Your task to perform on an android device: Is it going to rain this weekend? Image 0: 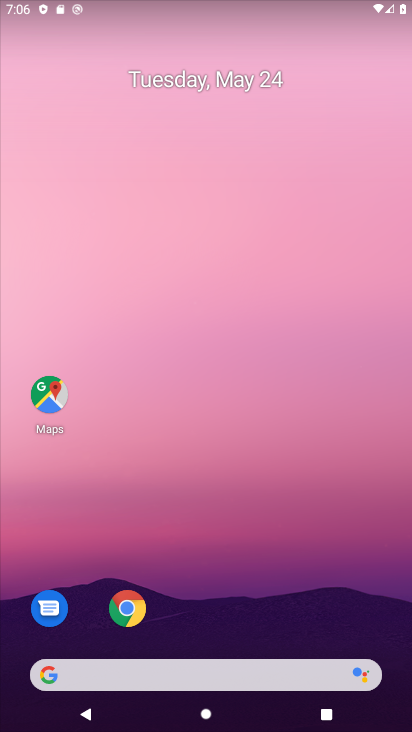
Step 0: drag from (295, 552) to (238, 139)
Your task to perform on an android device: Is it going to rain this weekend? Image 1: 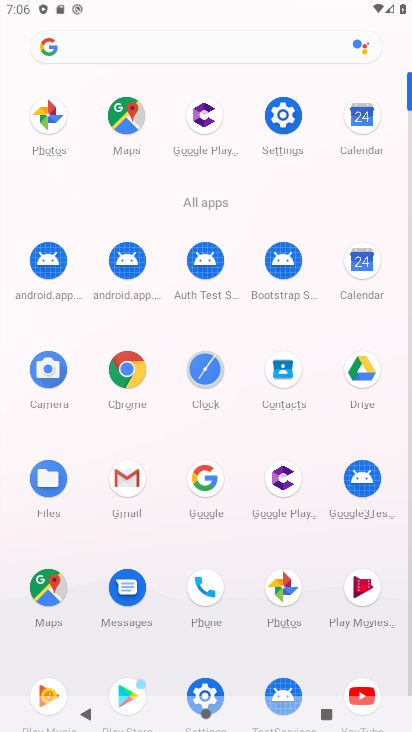
Step 1: click (200, 477)
Your task to perform on an android device: Is it going to rain this weekend? Image 2: 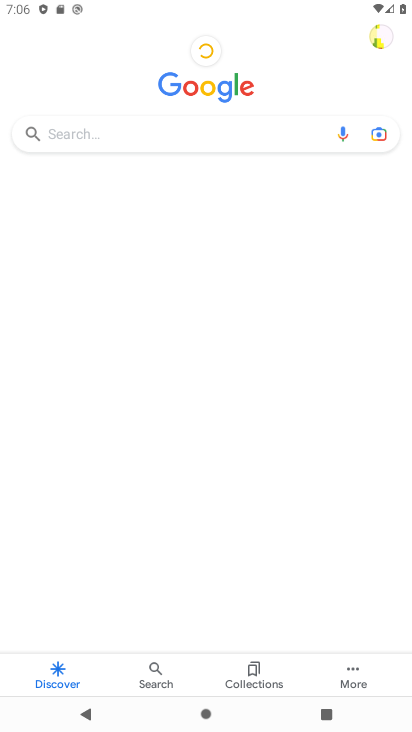
Step 2: click (147, 132)
Your task to perform on an android device: Is it going to rain this weekend? Image 3: 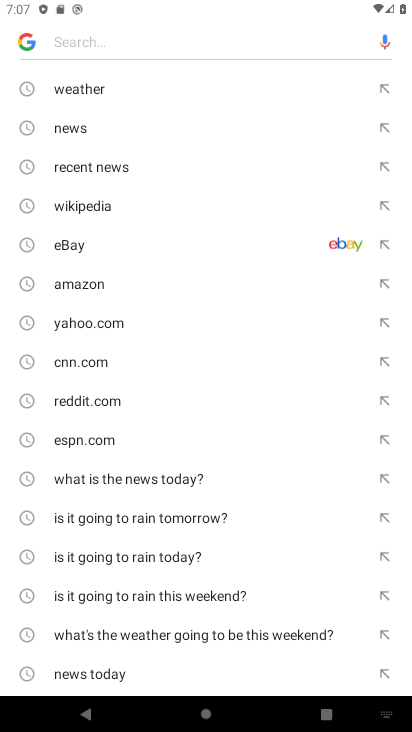
Step 3: type "Is it going to rain this weekend"
Your task to perform on an android device: Is it going to rain this weekend? Image 4: 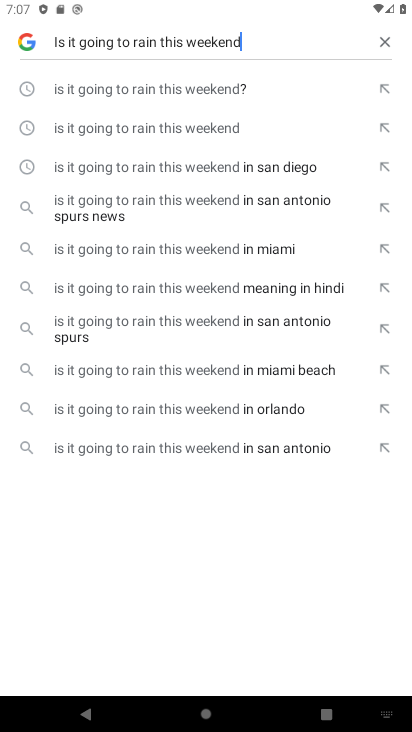
Step 4: click (148, 86)
Your task to perform on an android device: Is it going to rain this weekend? Image 5: 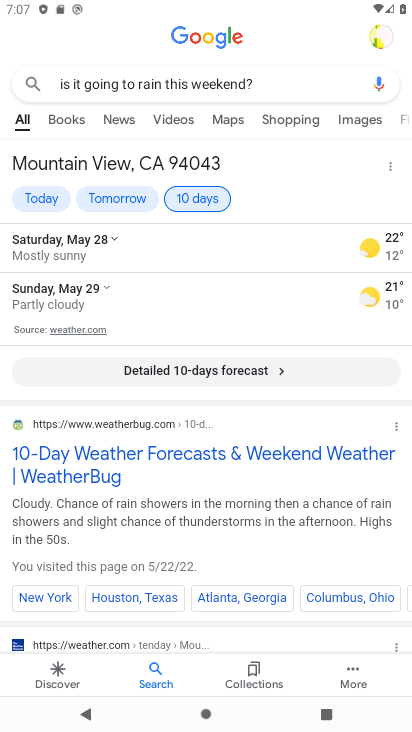
Step 5: task complete